Your task to perform on an android device: clear history in the chrome app Image 0: 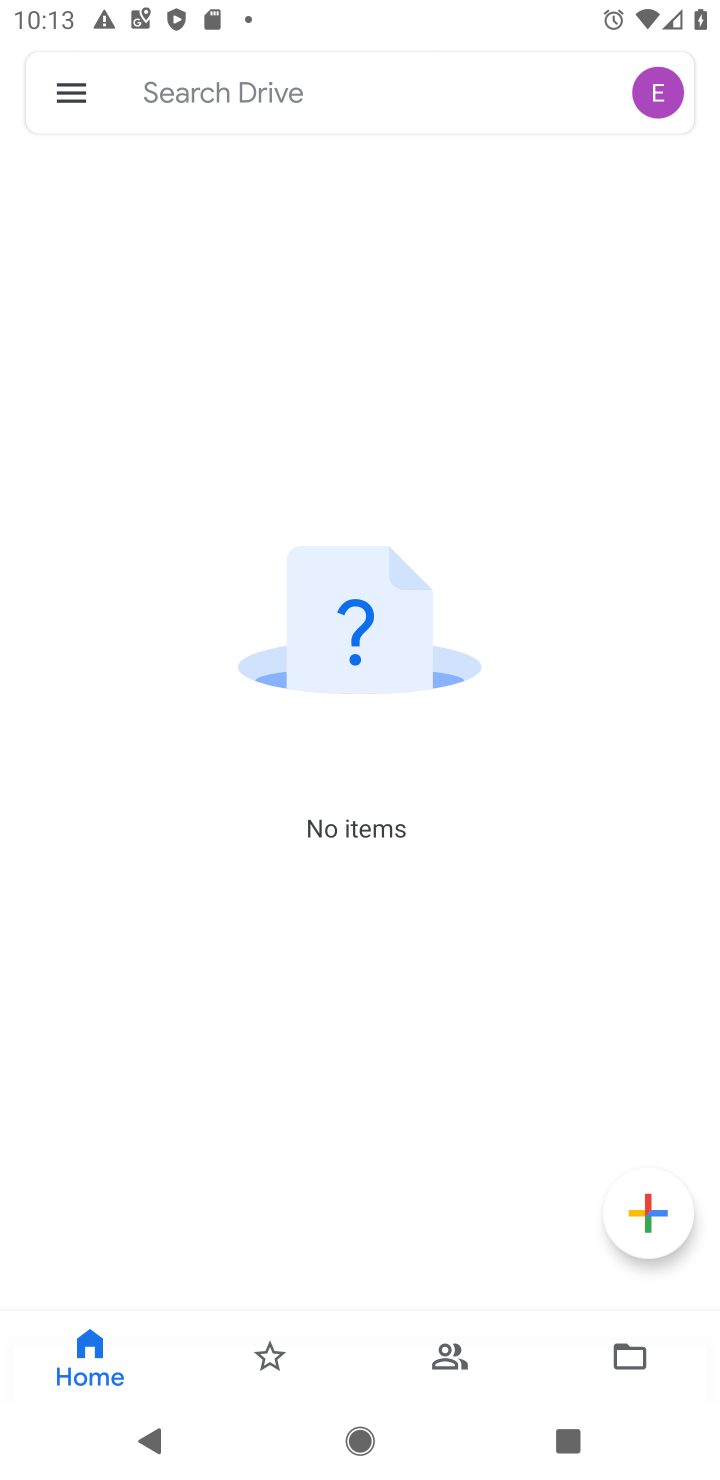
Step 0: press home button
Your task to perform on an android device: clear history in the chrome app Image 1: 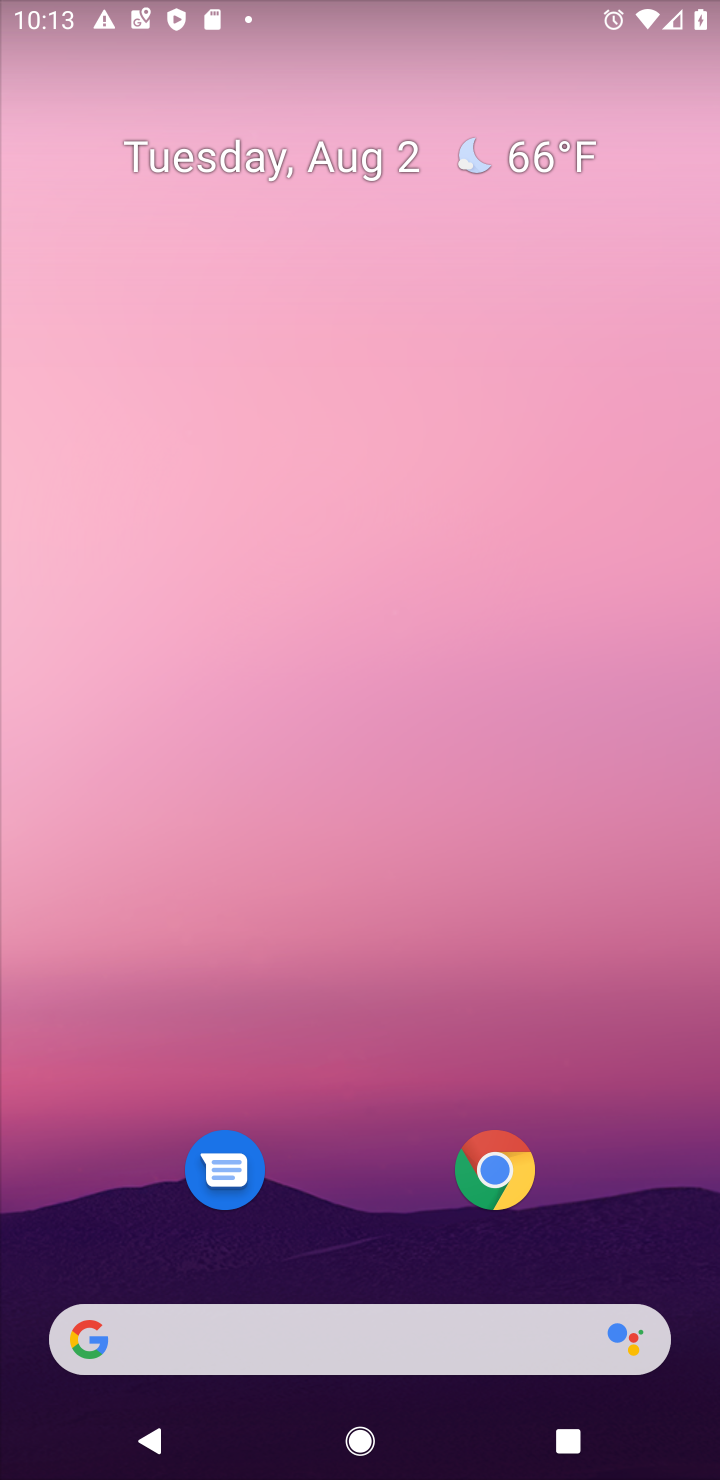
Step 1: click (484, 1188)
Your task to perform on an android device: clear history in the chrome app Image 2: 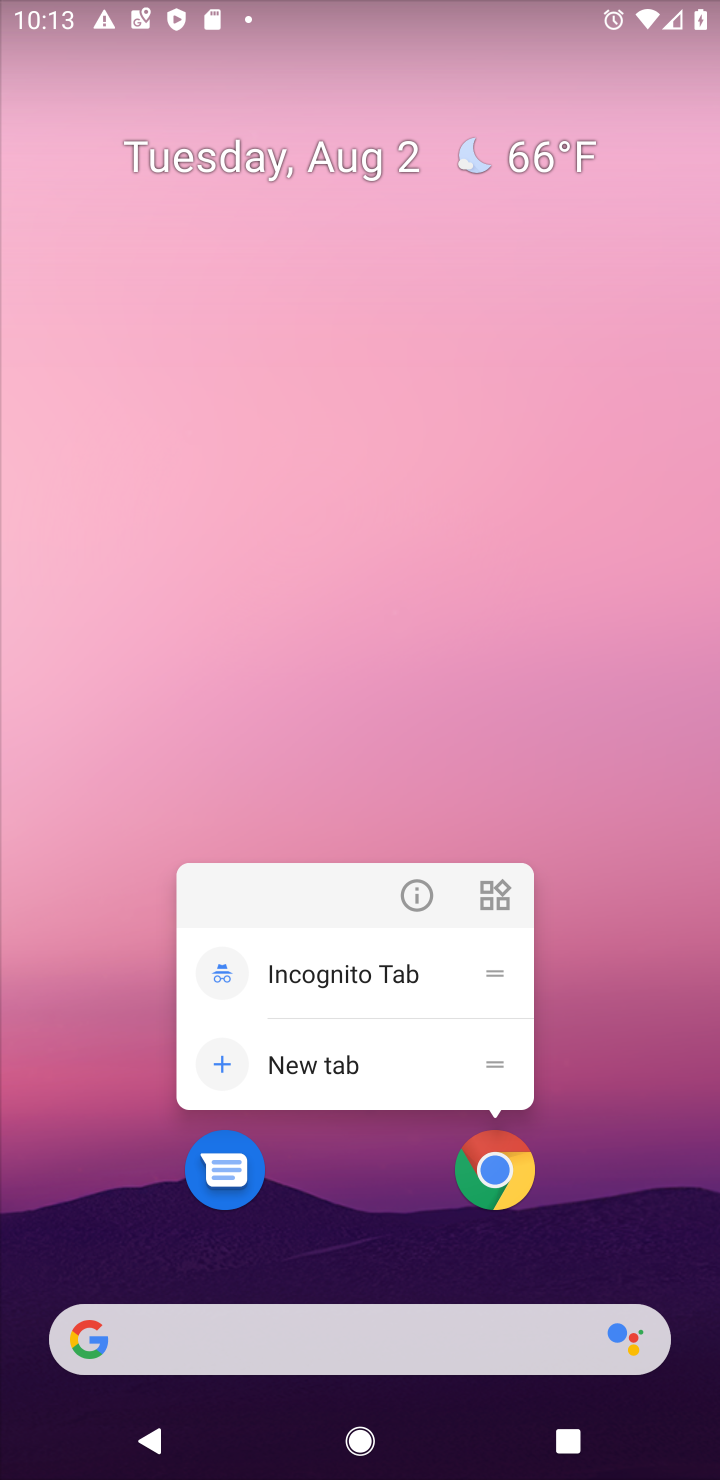
Step 2: click (484, 1188)
Your task to perform on an android device: clear history in the chrome app Image 3: 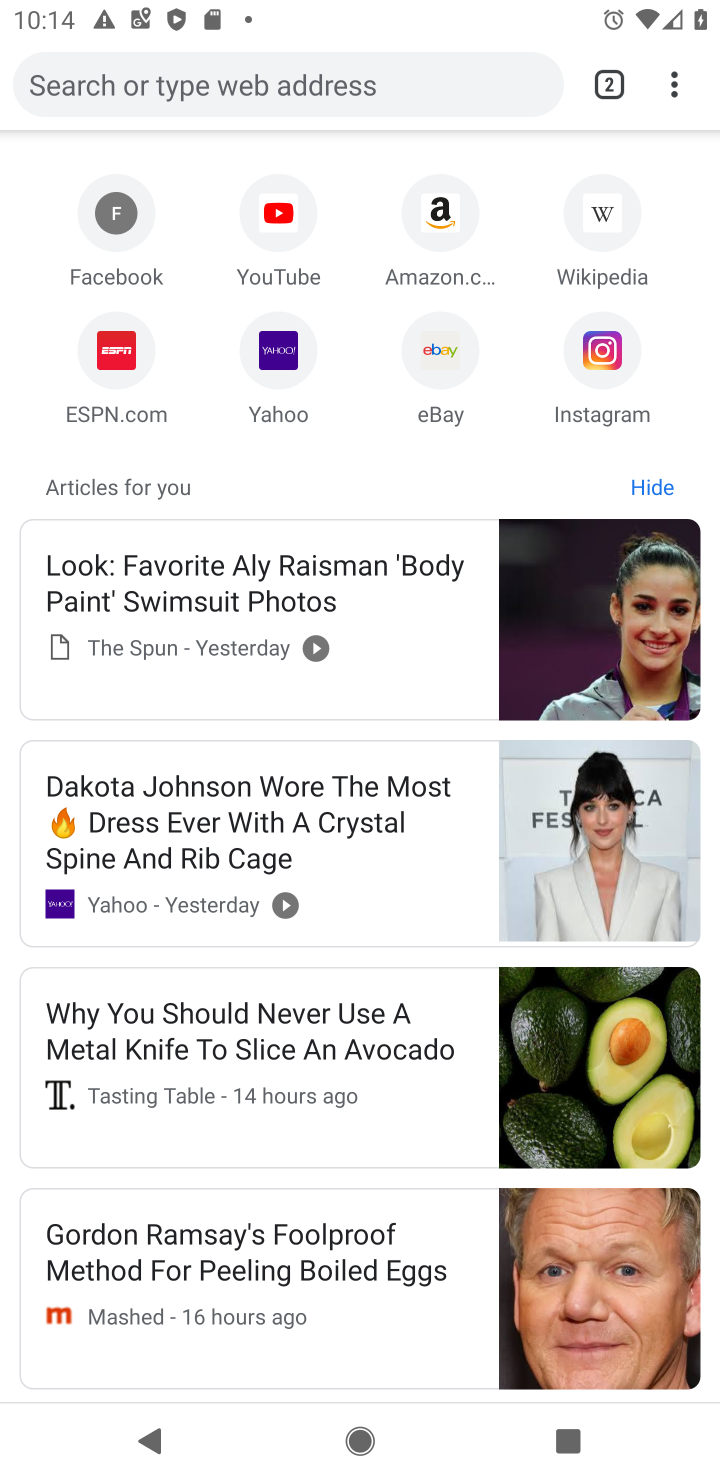
Step 3: click (671, 83)
Your task to perform on an android device: clear history in the chrome app Image 4: 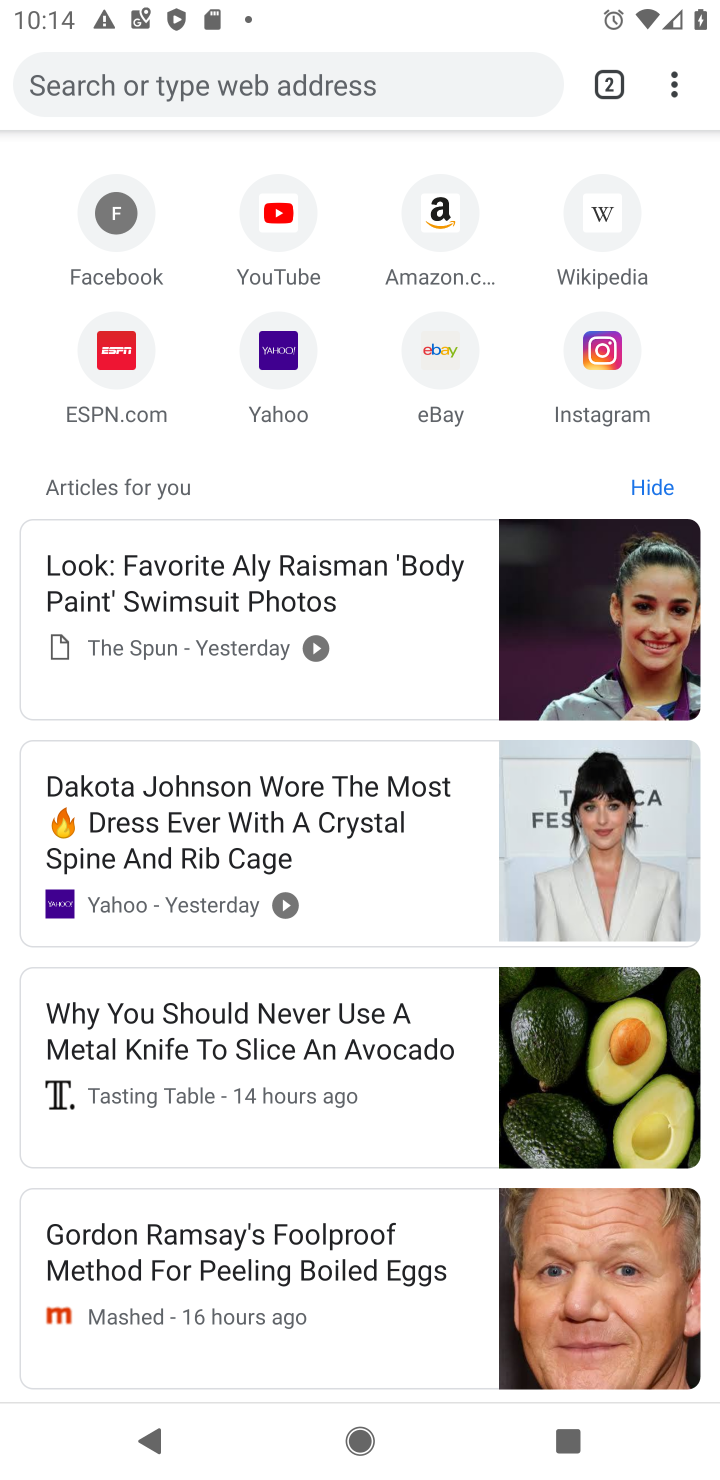
Step 4: click (671, 83)
Your task to perform on an android device: clear history in the chrome app Image 5: 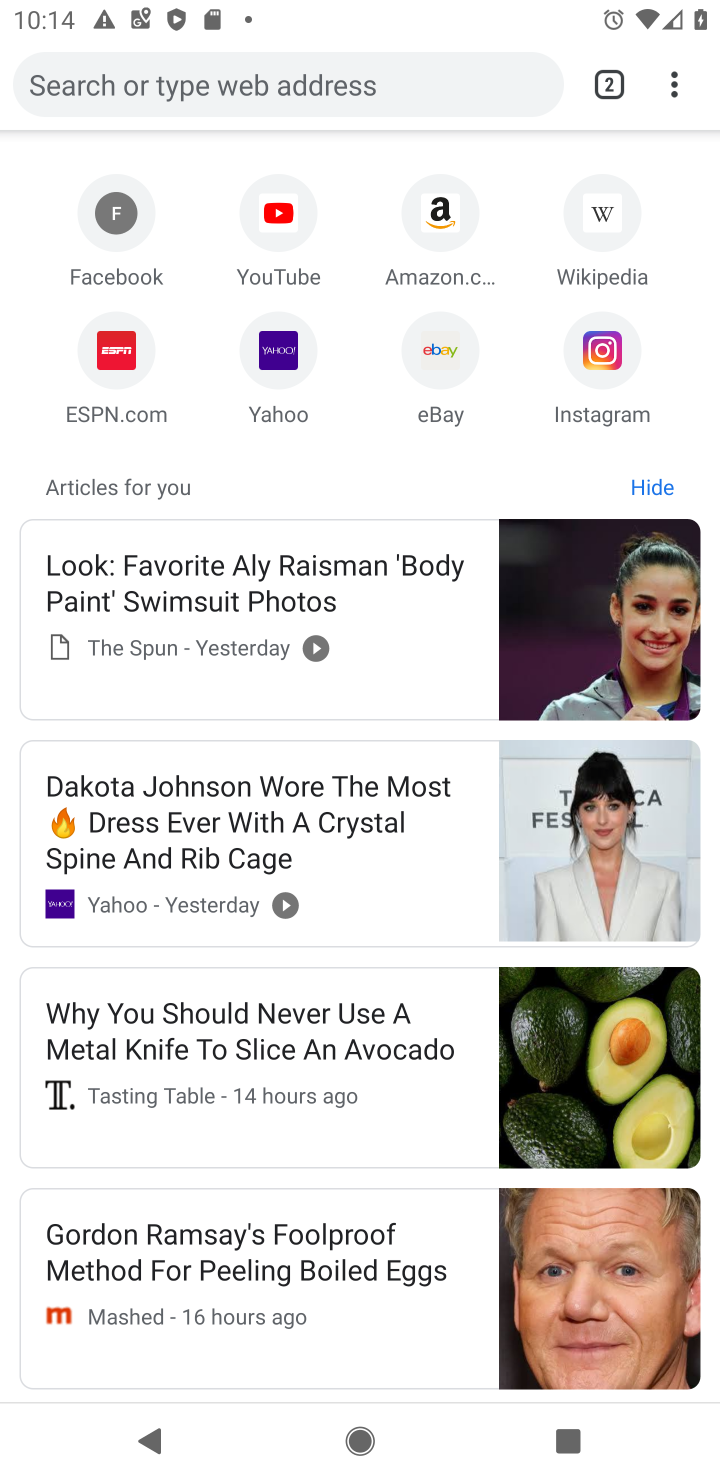
Step 5: click (678, 90)
Your task to perform on an android device: clear history in the chrome app Image 6: 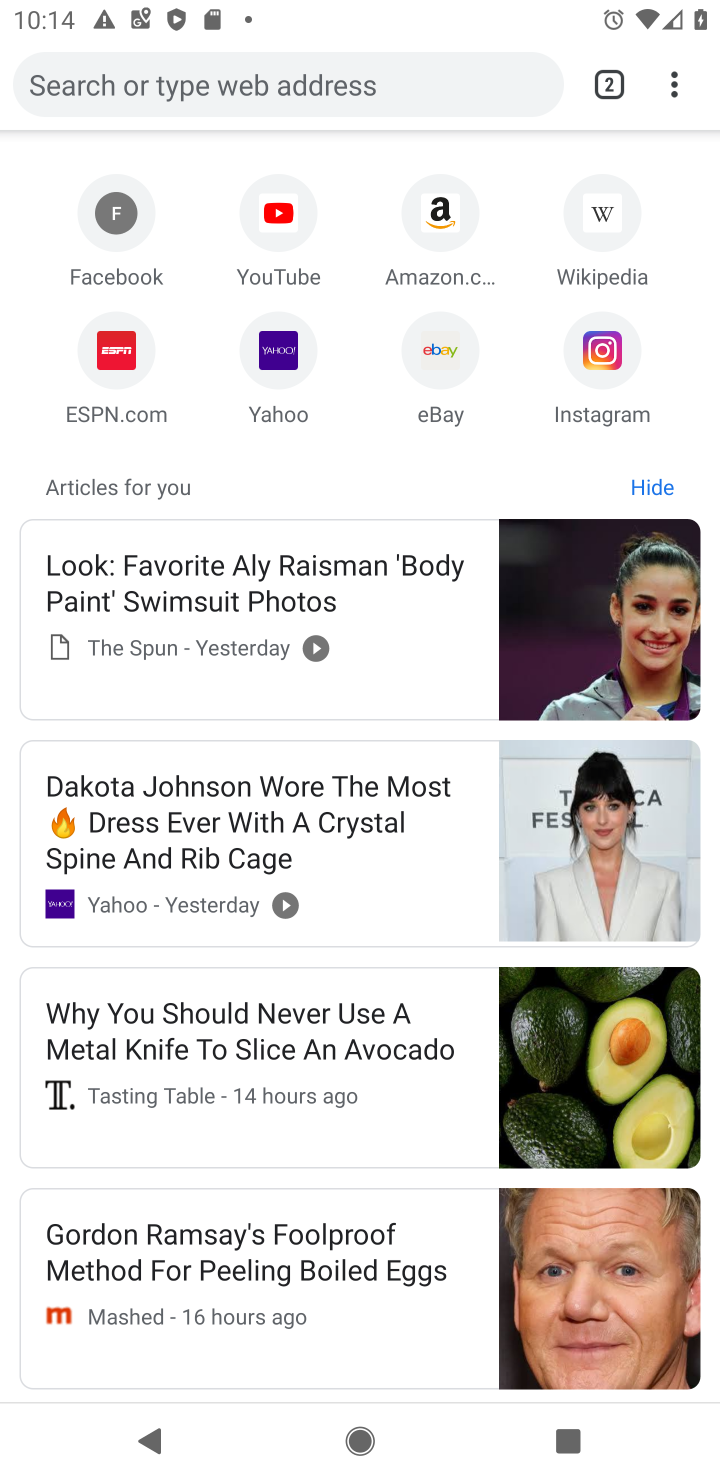
Step 6: click (672, 90)
Your task to perform on an android device: clear history in the chrome app Image 7: 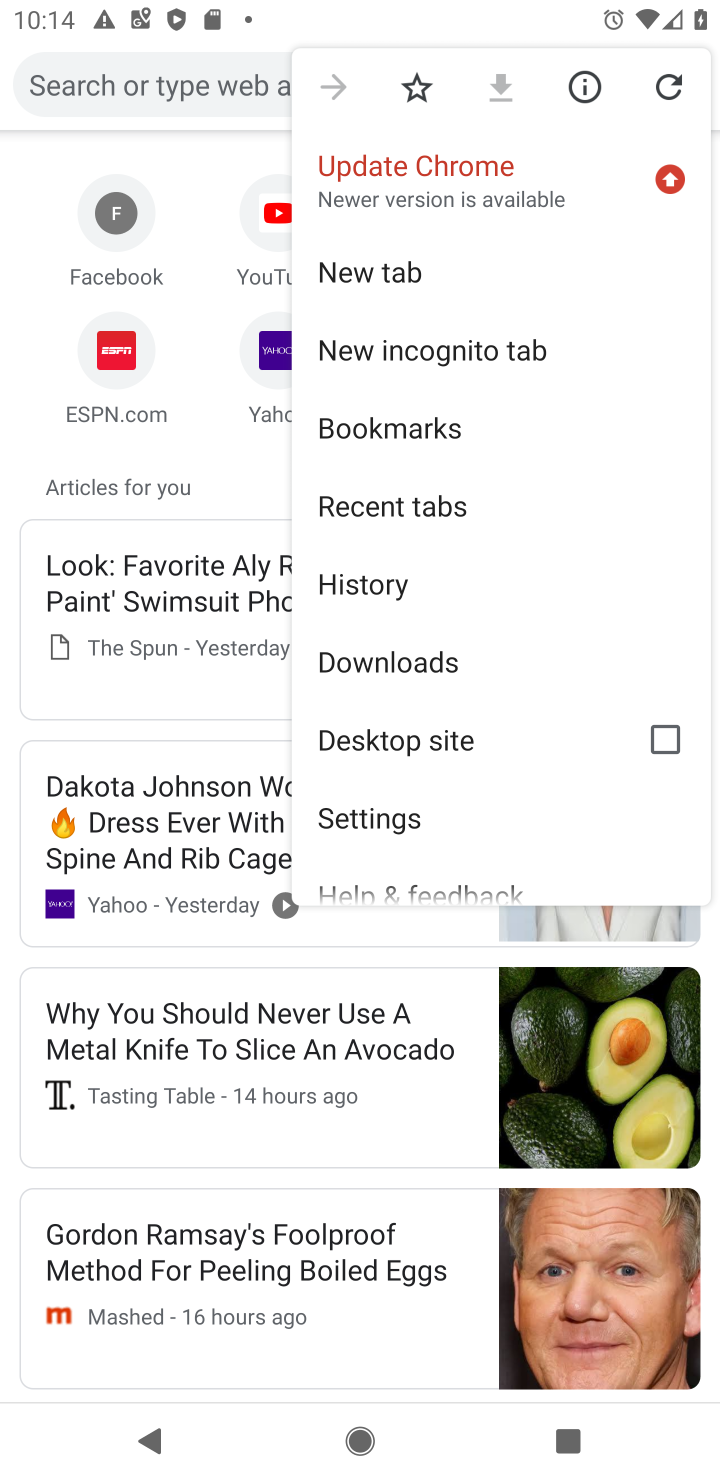
Step 7: click (373, 597)
Your task to perform on an android device: clear history in the chrome app Image 8: 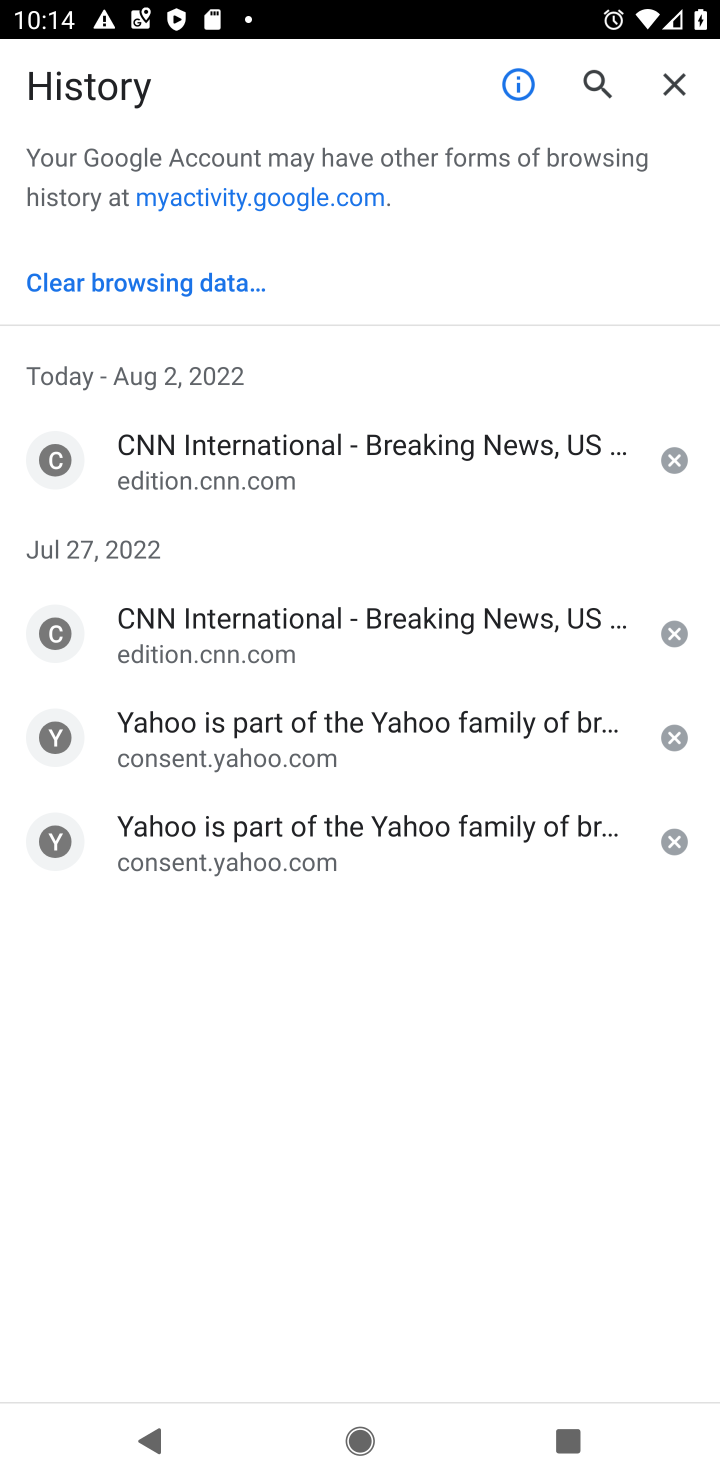
Step 8: click (98, 271)
Your task to perform on an android device: clear history in the chrome app Image 9: 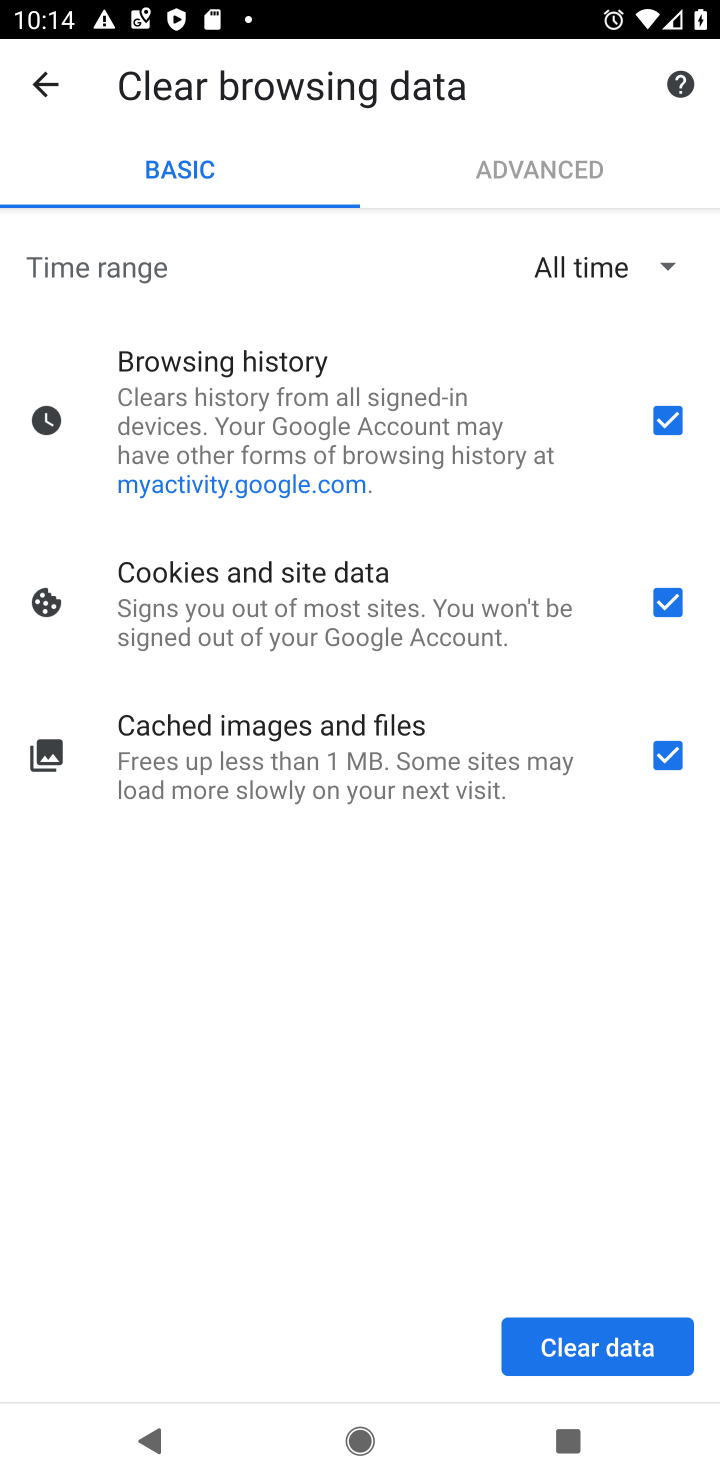
Step 9: click (580, 1346)
Your task to perform on an android device: clear history in the chrome app Image 10: 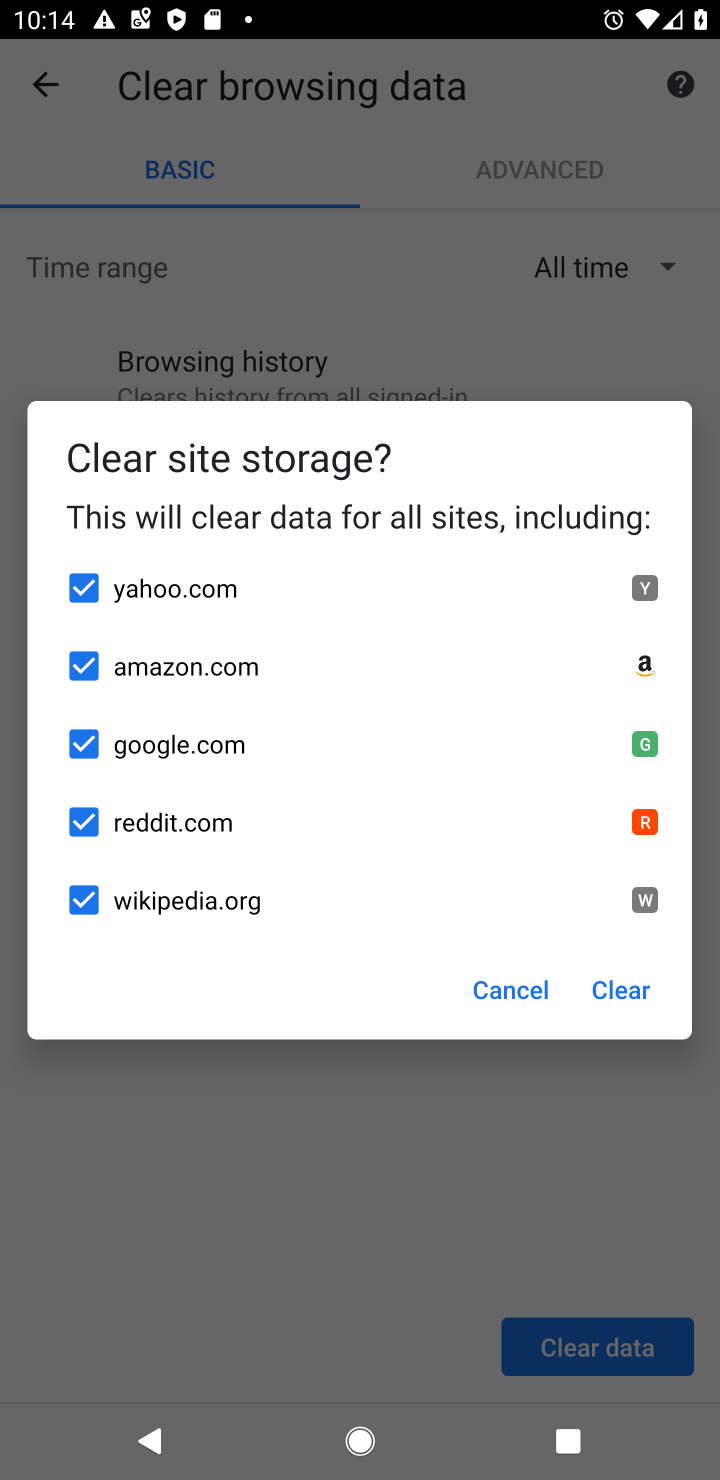
Step 10: click (612, 986)
Your task to perform on an android device: clear history in the chrome app Image 11: 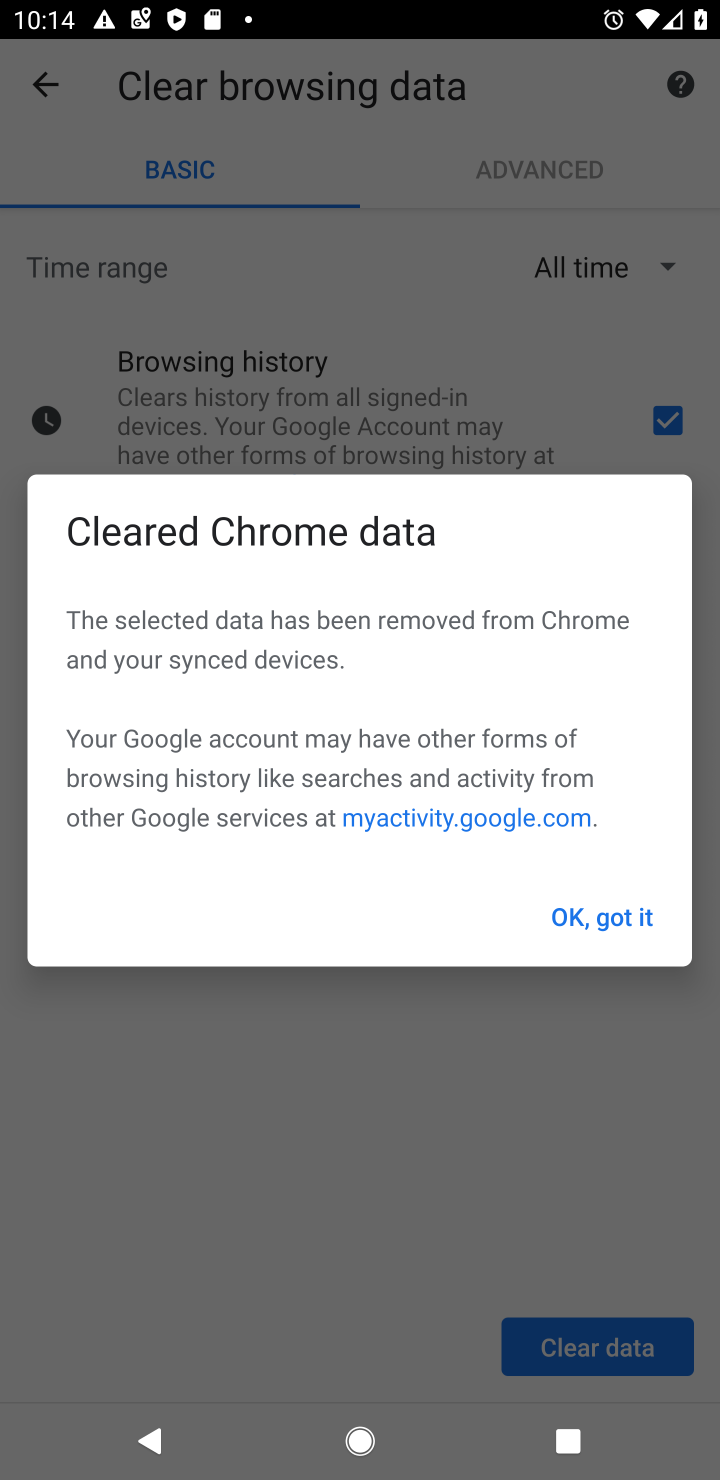
Step 11: click (593, 910)
Your task to perform on an android device: clear history in the chrome app Image 12: 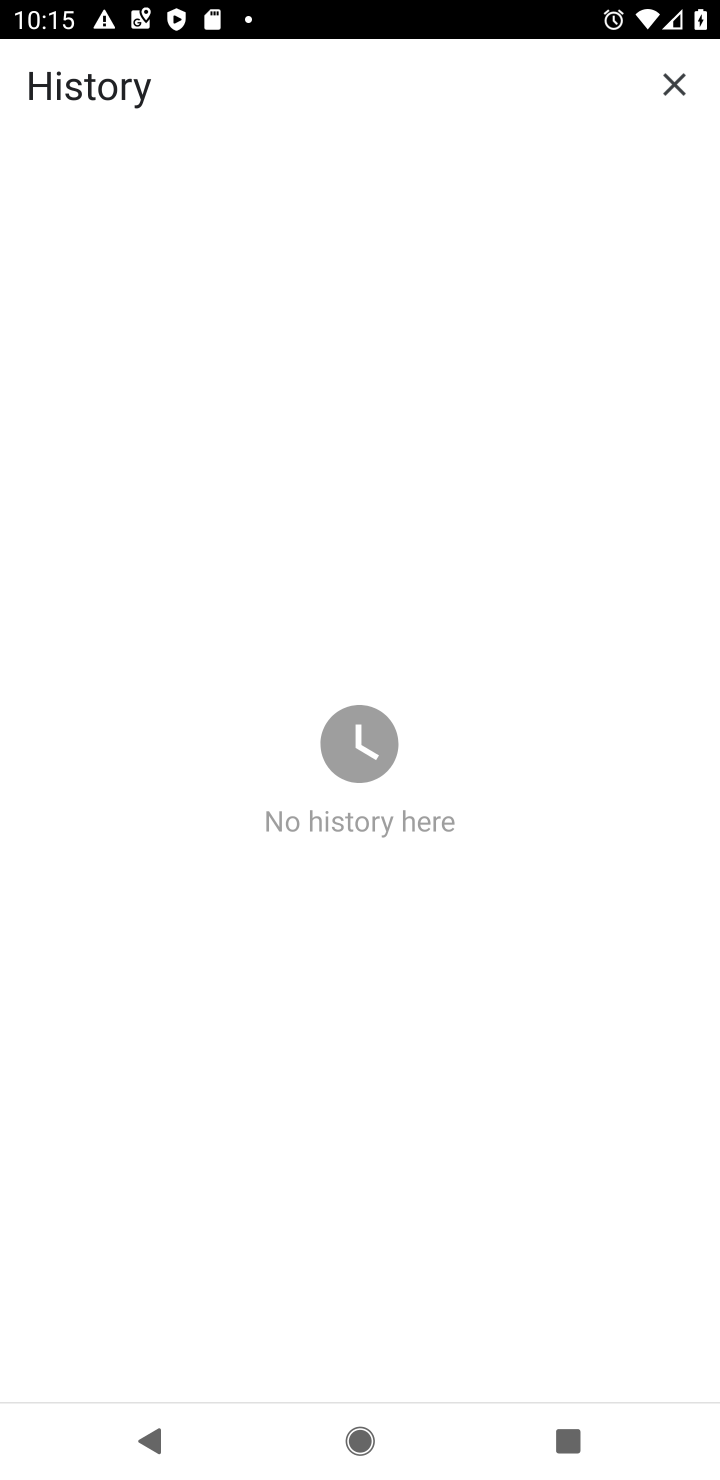
Step 12: task complete